Your task to perform on an android device: change the clock display to analog Image 0: 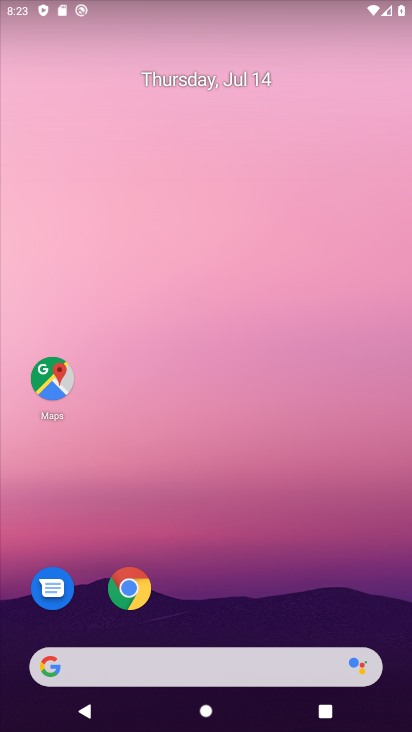
Step 0: drag from (248, 613) to (316, 143)
Your task to perform on an android device: change the clock display to analog Image 1: 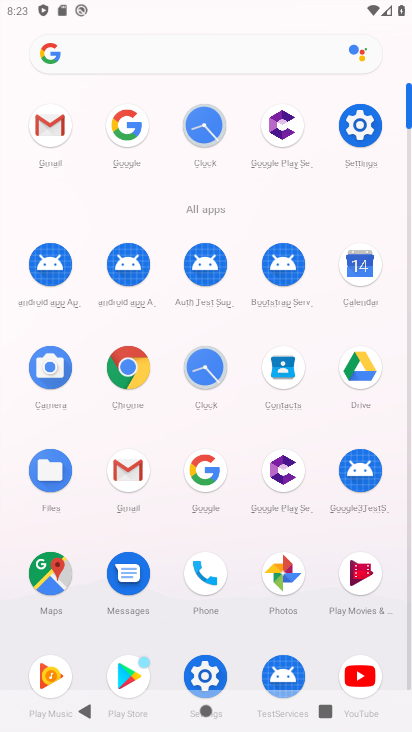
Step 1: click (201, 373)
Your task to perform on an android device: change the clock display to analog Image 2: 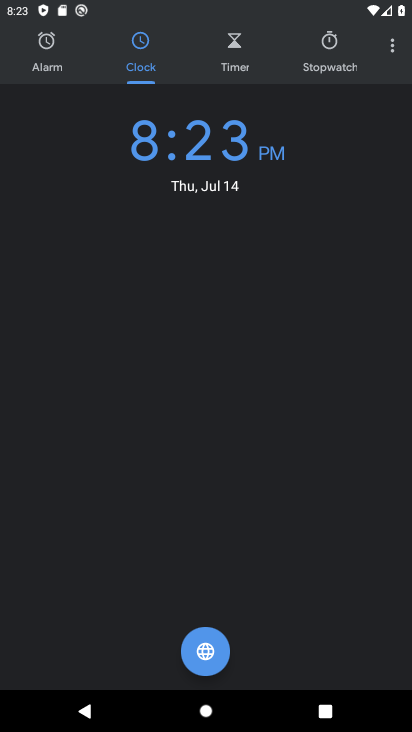
Step 2: click (387, 36)
Your task to perform on an android device: change the clock display to analog Image 3: 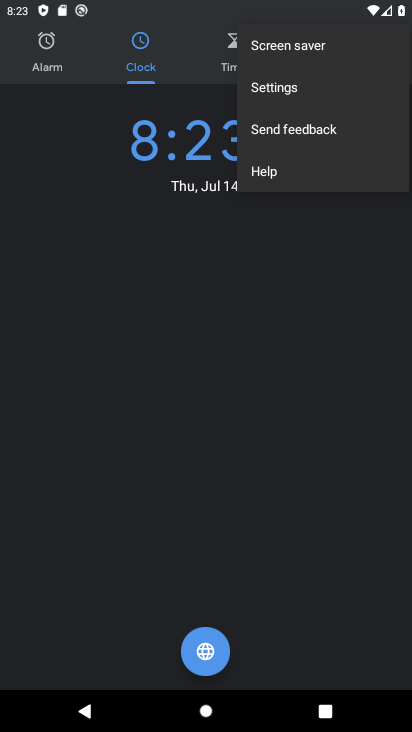
Step 3: click (290, 86)
Your task to perform on an android device: change the clock display to analog Image 4: 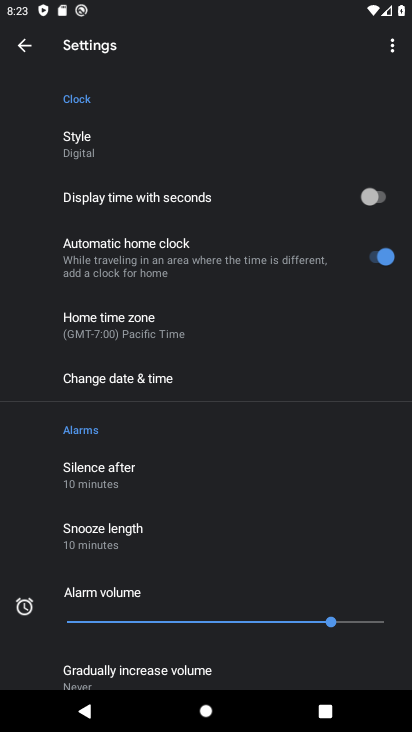
Step 4: click (152, 146)
Your task to perform on an android device: change the clock display to analog Image 5: 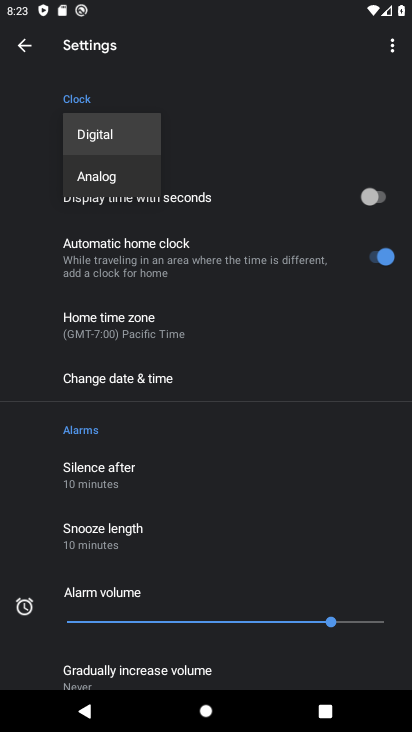
Step 5: click (110, 174)
Your task to perform on an android device: change the clock display to analog Image 6: 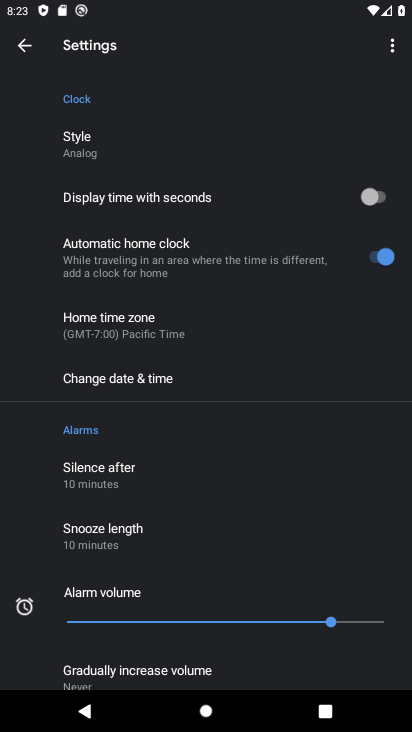
Step 6: task complete